Your task to perform on an android device: Go to calendar. Show me events next week Image 0: 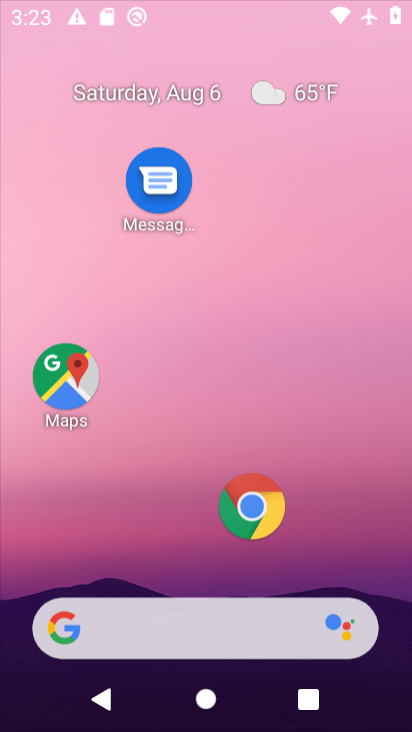
Step 0: drag from (157, 572) to (185, 129)
Your task to perform on an android device: Go to calendar. Show me events next week Image 1: 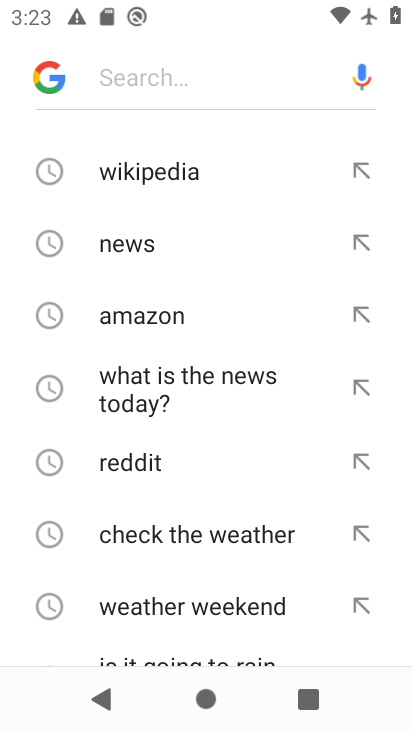
Step 1: press home button
Your task to perform on an android device: Go to calendar. Show me events next week Image 2: 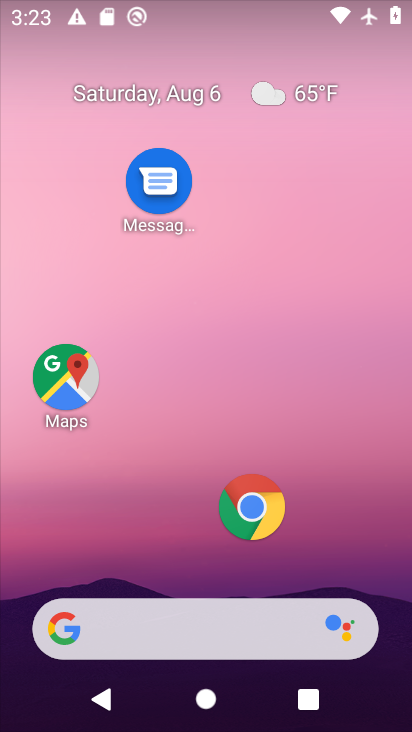
Step 2: drag from (153, 539) to (161, 56)
Your task to perform on an android device: Go to calendar. Show me events next week Image 3: 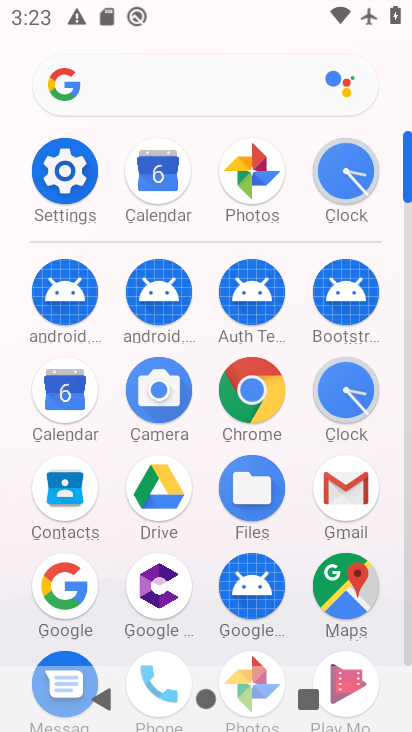
Step 3: click (64, 405)
Your task to perform on an android device: Go to calendar. Show me events next week Image 4: 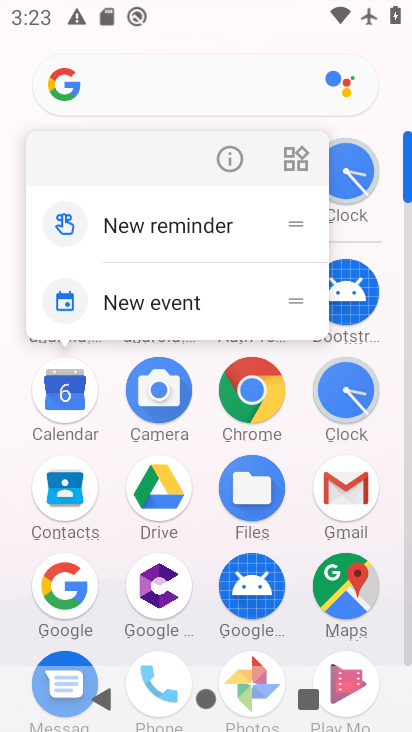
Step 4: click (52, 416)
Your task to perform on an android device: Go to calendar. Show me events next week Image 5: 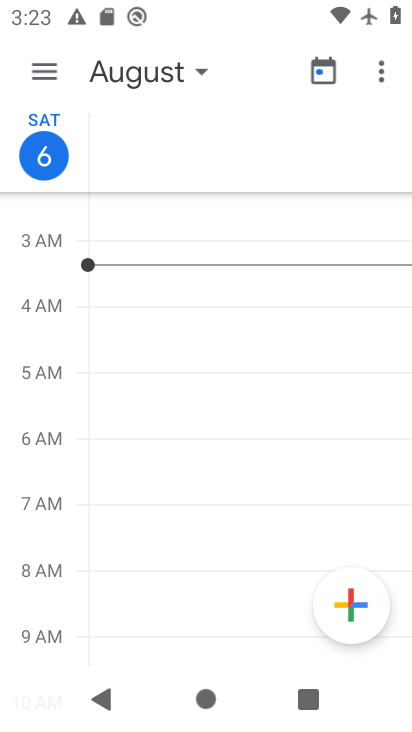
Step 5: click (42, 67)
Your task to perform on an android device: Go to calendar. Show me events next week Image 6: 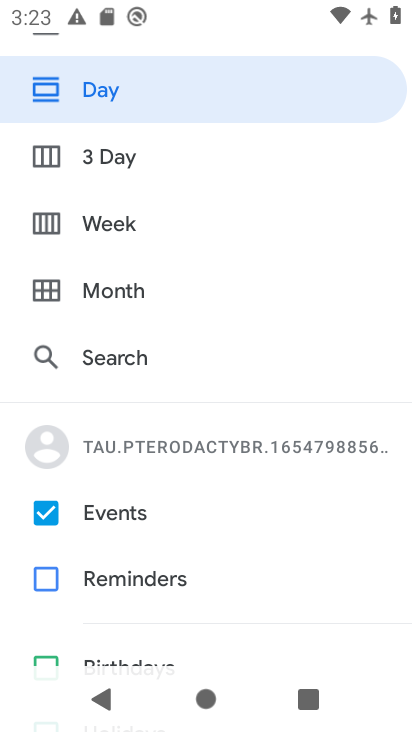
Step 6: click (125, 223)
Your task to perform on an android device: Go to calendar. Show me events next week Image 7: 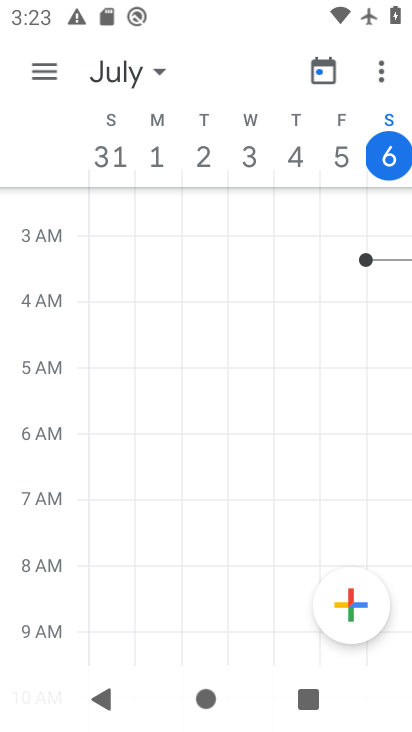
Step 7: task complete